Your task to perform on an android device: clear all cookies in the chrome app Image 0: 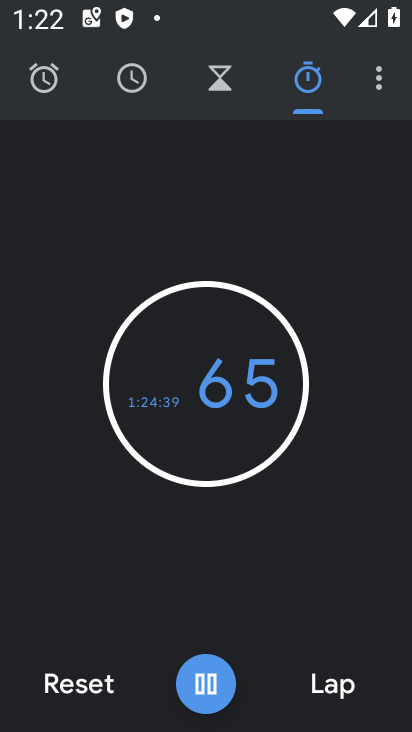
Step 0: press home button
Your task to perform on an android device: clear all cookies in the chrome app Image 1: 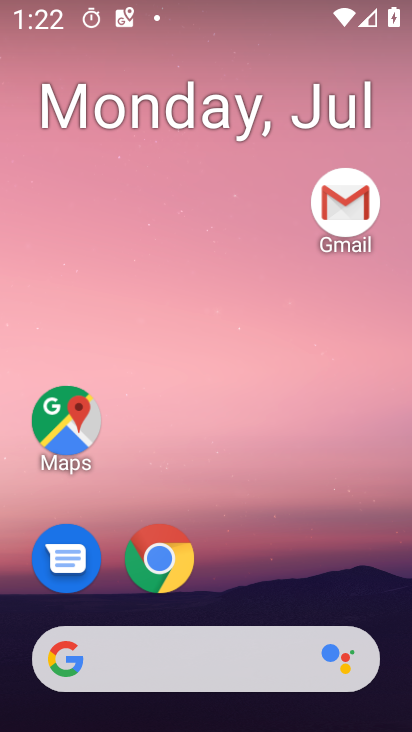
Step 1: drag from (339, 564) to (351, 64)
Your task to perform on an android device: clear all cookies in the chrome app Image 2: 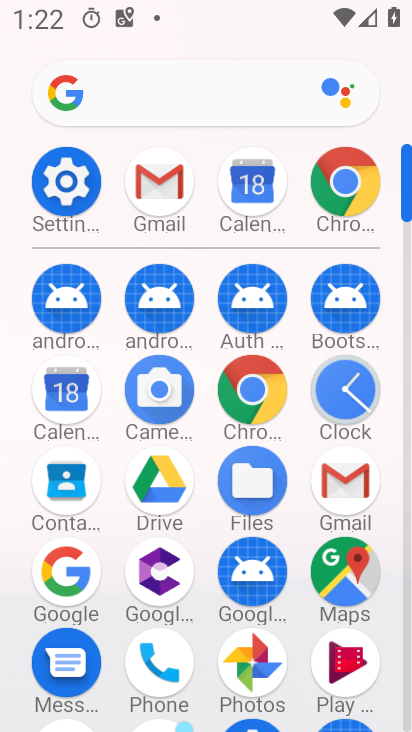
Step 2: click (272, 392)
Your task to perform on an android device: clear all cookies in the chrome app Image 3: 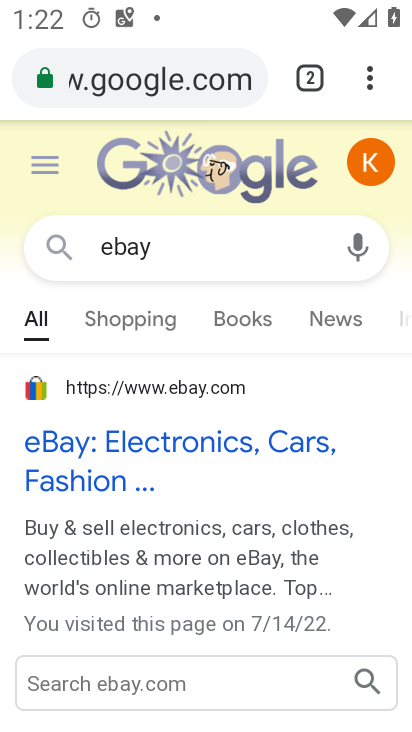
Step 3: click (370, 81)
Your task to perform on an android device: clear all cookies in the chrome app Image 4: 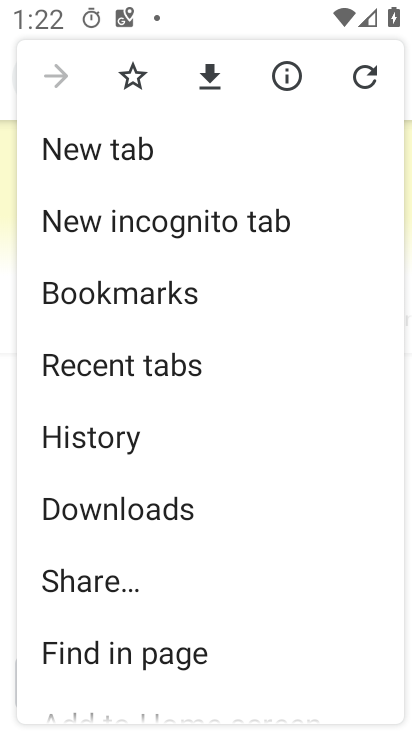
Step 4: drag from (318, 531) to (318, 435)
Your task to perform on an android device: clear all cookies in the chrome app Image 5: 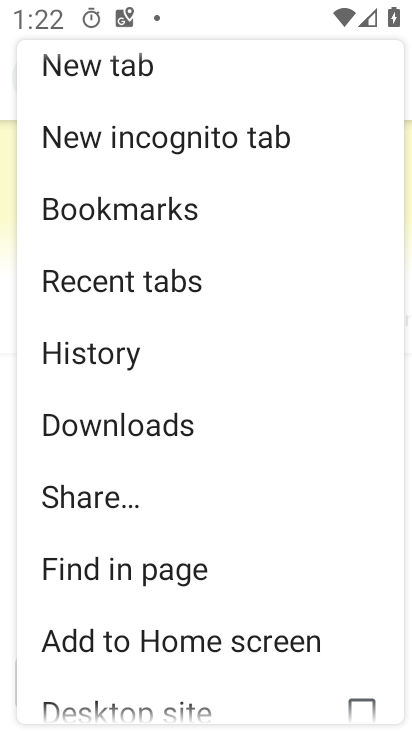
Step 5: drag from (306, 542) to (311, 451)
Your task to perform on an android device: clear all cookies in the chrome app Image 6: 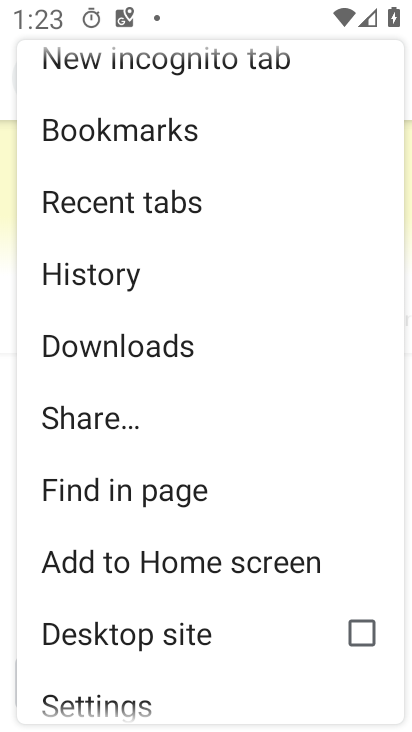
Step 6: drag from (290, 618) to (299, 472)
Your task to perform on an android device: clear all cookies in the chrome app Image 7: 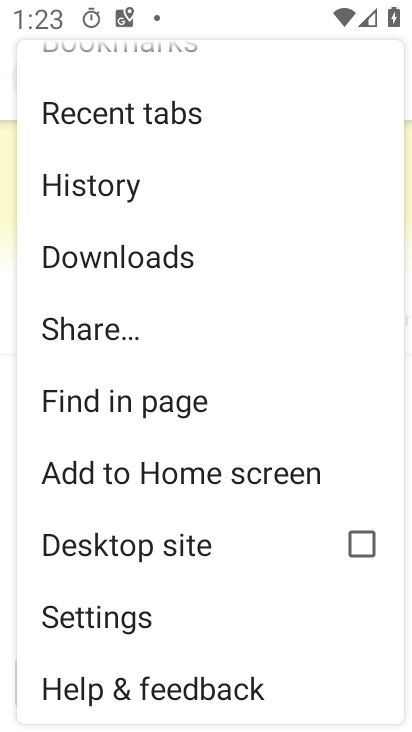
Step 7: click (209, 622)
Your task to perform on an android device: clear all cookies in the chrome app Image 8: 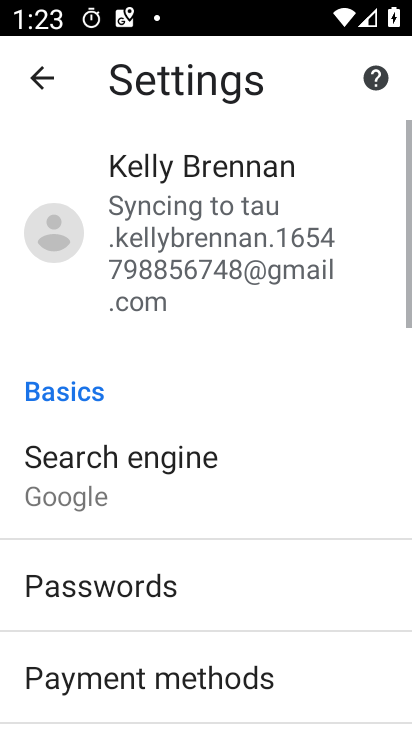
Step 8: drag from (289, 553) to (306, 471)
Your task to perform on an android device: clear all cookies in the chrome app Image 9: 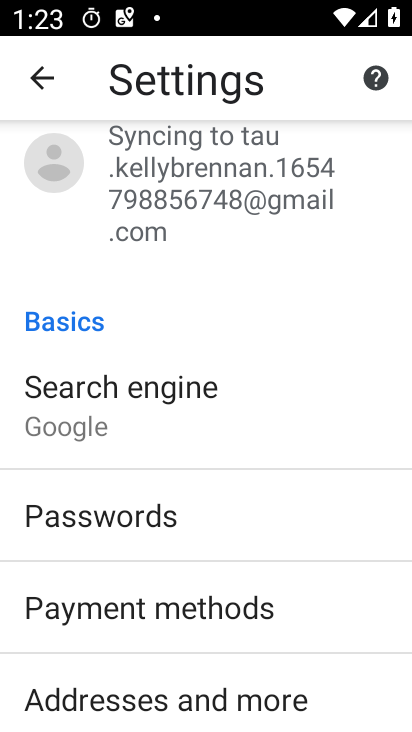
Step 9: drag from (316, 600) to (331, 500)
Your task to perform on an android device: clear all cookies in the chrome app Image 10: 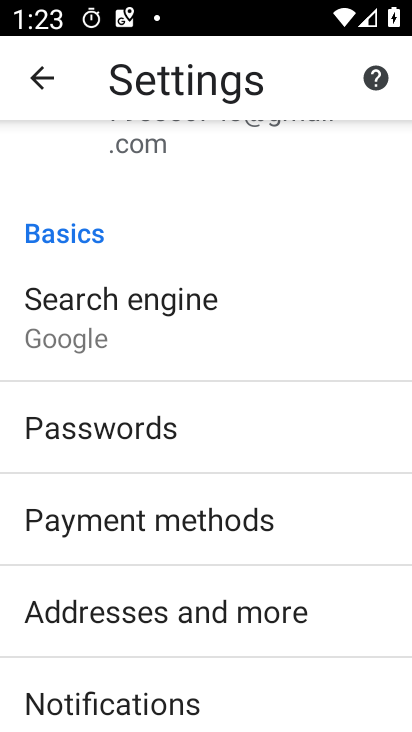
Step 10: drag from (331, 641) to (352, 423)
Your task to perform on an android device: clear all cookies in the chrome app Image 11: 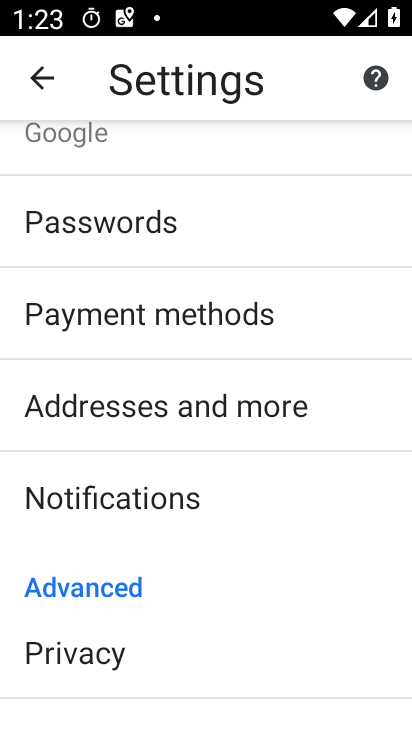
Step 11: drag from (318, 540) to (322, 471)
Your task to perform on an android device: clear all cookies in the chrome app Image 12: 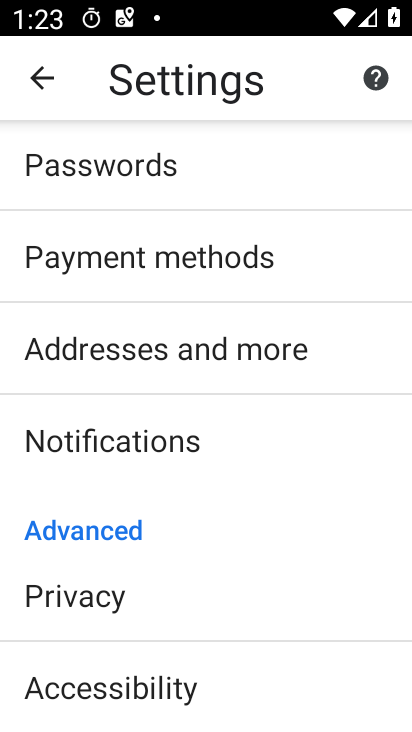
Step 12: drag from (319, 573) to (329, 483)
Your task to perform on an android device: clear all cookies in the chrome app Image 13: 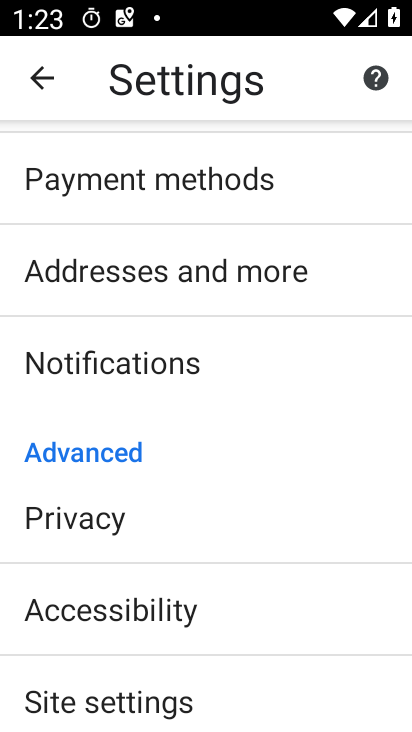
Step 13: drag from (324, 595) to (331, 508)
Your task to perform on an android device: clear all cookies in the chrome app Image 14: 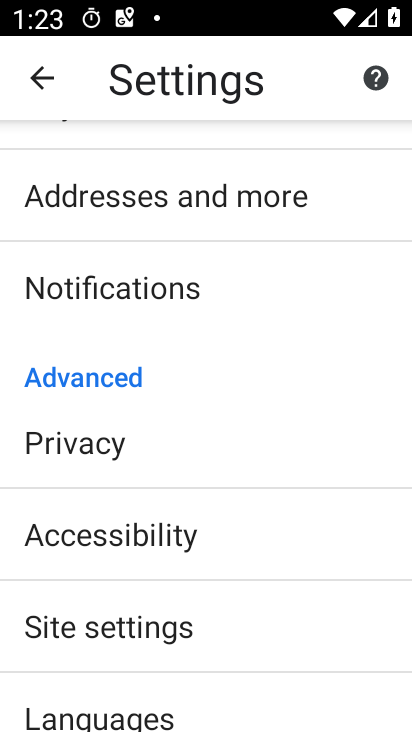
Step 14: click (262, 475)
Your task to perform on an android device: clear all cookies in the chrome app Image 15: 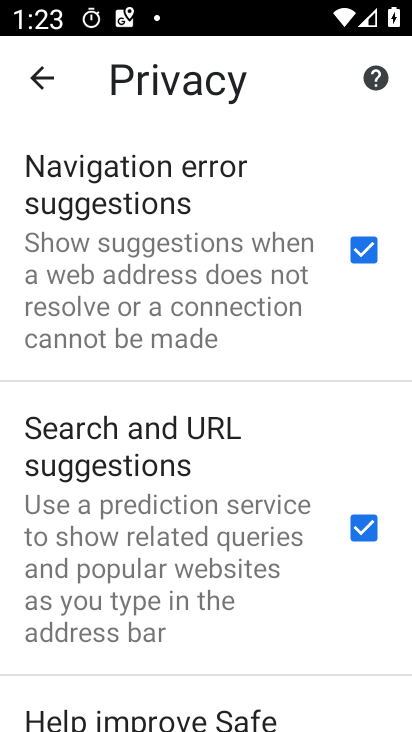
Step 15: drag from (279, 568) to (290, 504)
Your task to perform on an android device: clear all cookies in the chrome app Image 16: 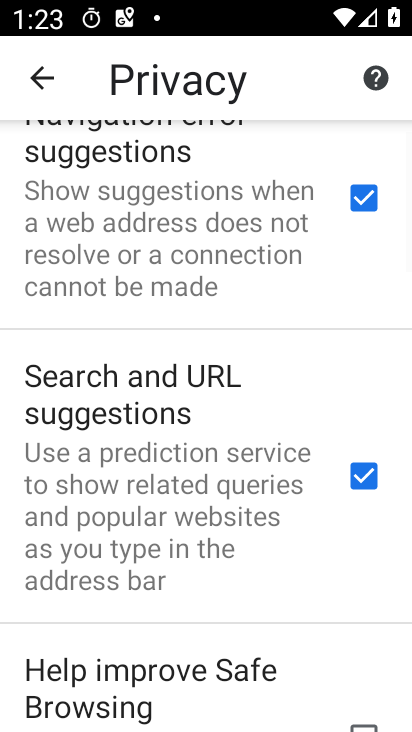
Step 16: drag from (282, 582) to (286, 489)
Your task to perform on an android device: clear all cookies in the chrome app Image 17: 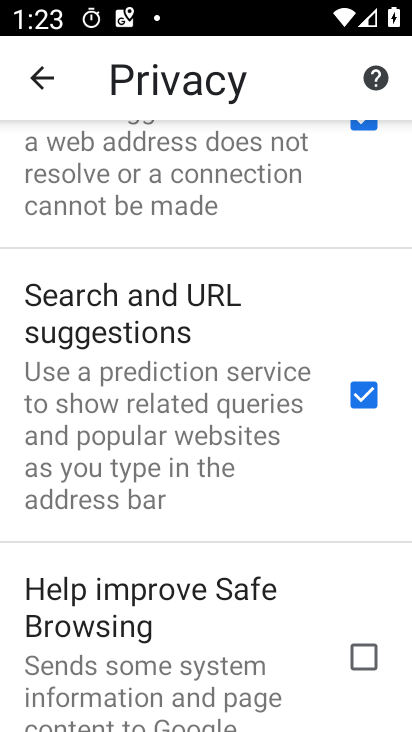
Step 17: drag from (286, 591) to (296, 506)
Your task to perform on an android device: clear all cookies in the chrome app Image 18: 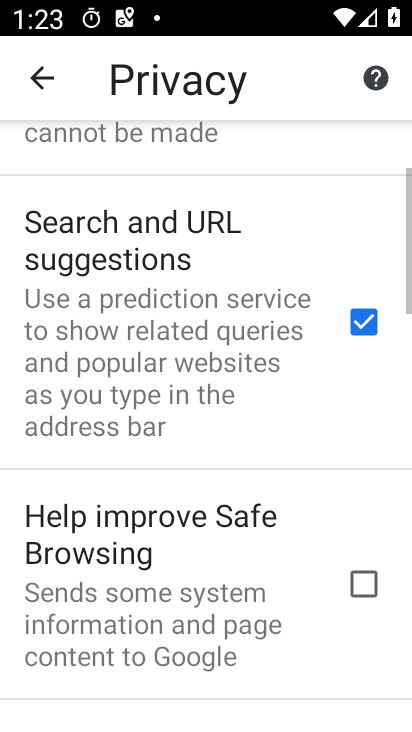
Step 18: drag from (287, 593) to (286, 495)
Your task to perform on an android device: clear all cookies in the chrome app Image 19: 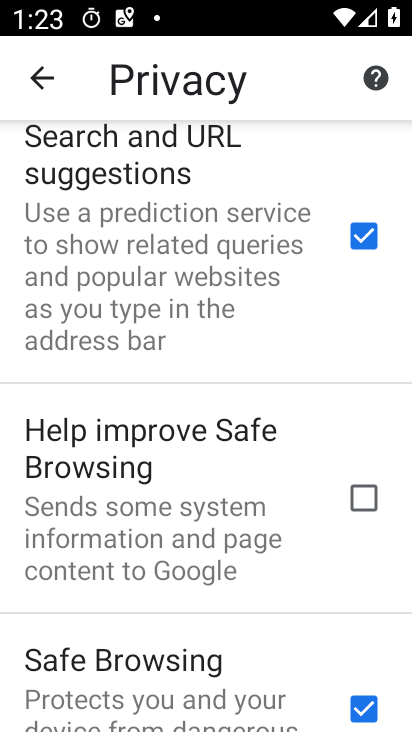
Step 19: drag from (284, 611) to (288, 512)
Your task to perform on an android device: clear all cookies in the chrome app Image 20: 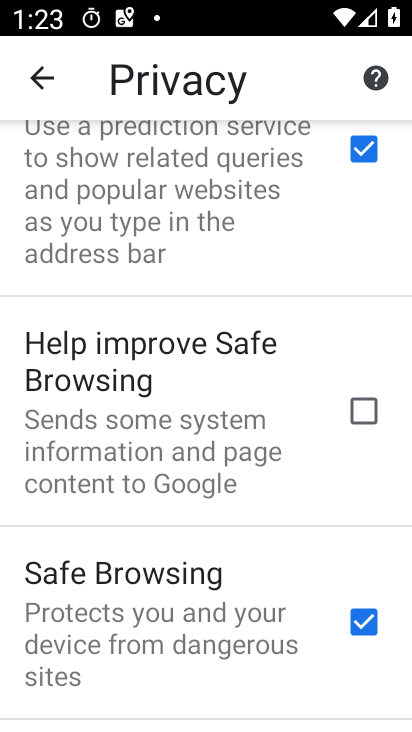
Step 20: drag from (286, 613) to (288, 528)
Your task to perform on an android device: clear all cookies in the chrome app Image 21: 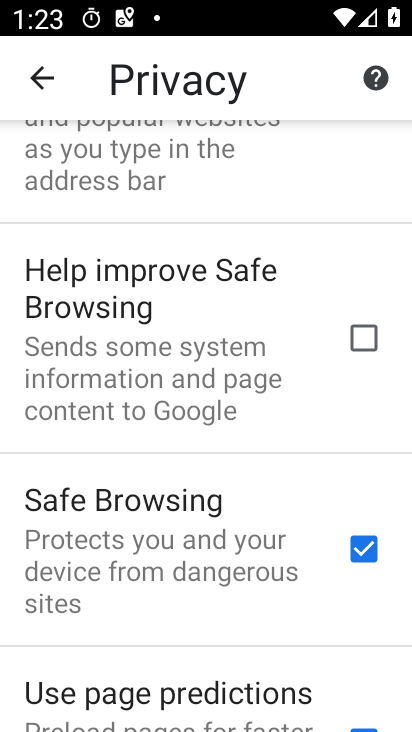
Step 21: drag from (288, 634) to (291, 544)
Your task to perform on an android device: clear all cookies in the chrome app Image 22: 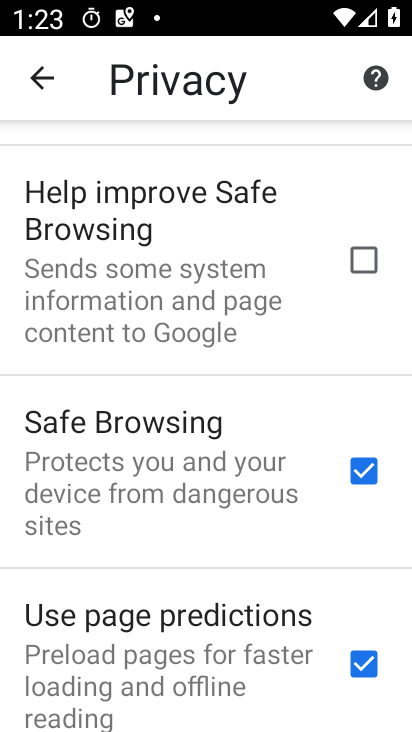
Step 22: drag from (280, 666) to (301, 554)
Your task to perform on an android device: clear all cookies in the chrome app Image 23: 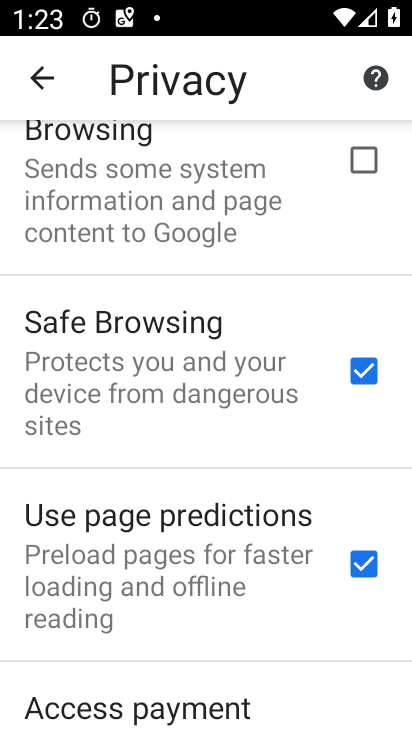
Step 23: drag from (274, 663) to (284, 550)
Your task to perform on an android device: clear all cookies in the chrome app Image 24: 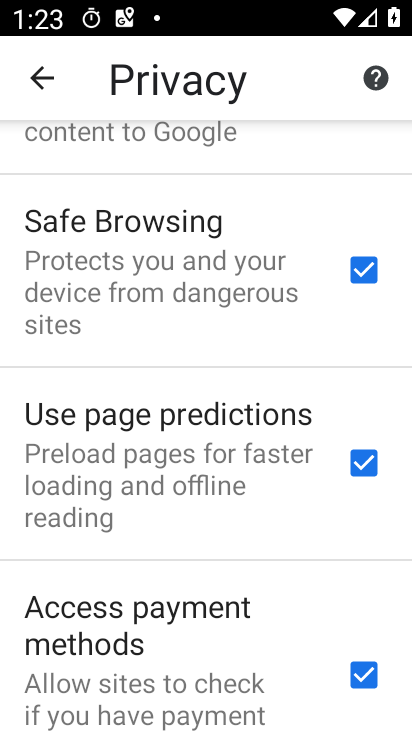
Step 24: drag from (279, 619) to (285, 525)
Your task to perform on an android device: clear all cookies in the chrome app Image 25: 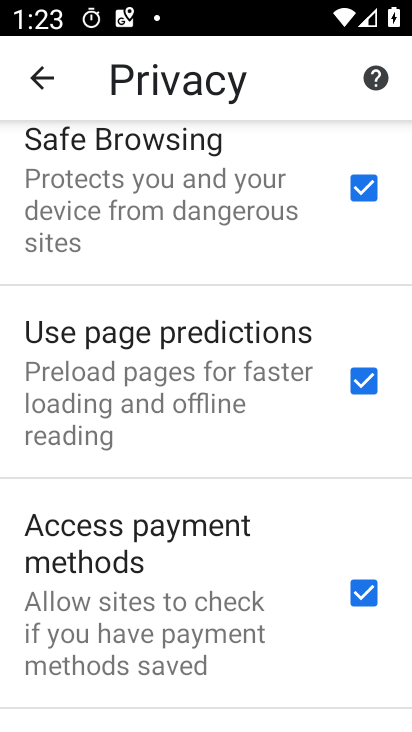
Step 25: drag from (275, 654) to (285, 522)
Your task to perform on an android device: clear all cookies in the chrome app Image 26: 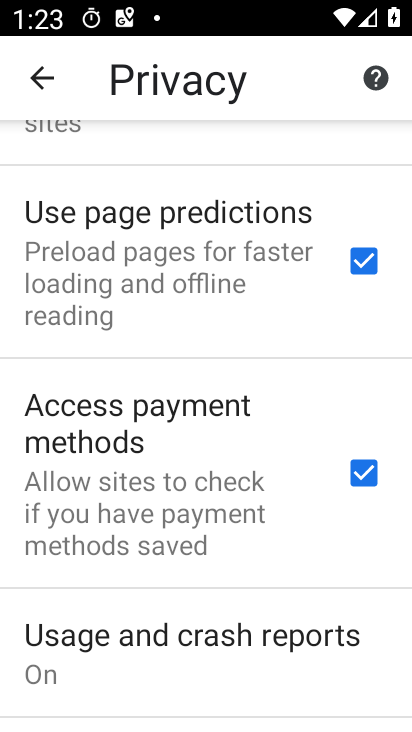
Step 26: drag from (263, 670) to (275, 552)
Your task to perform on an android device: clear all cookies in the chrome app Image 27: 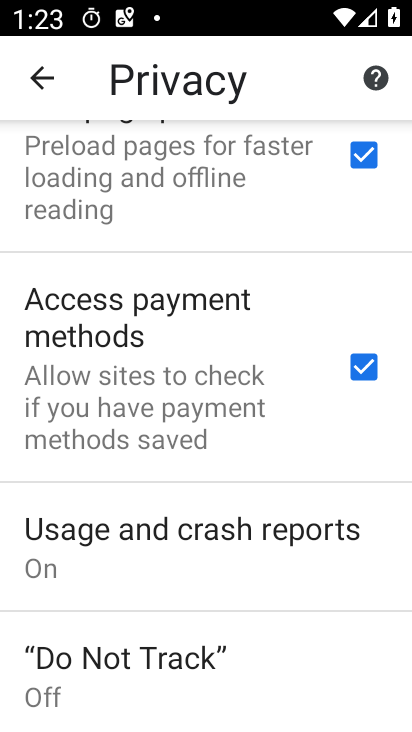
Step 27: drag from (273, 650) to (303, 493)
Your task to perform on an android device: clear all cookies in the chrome app Image 28: 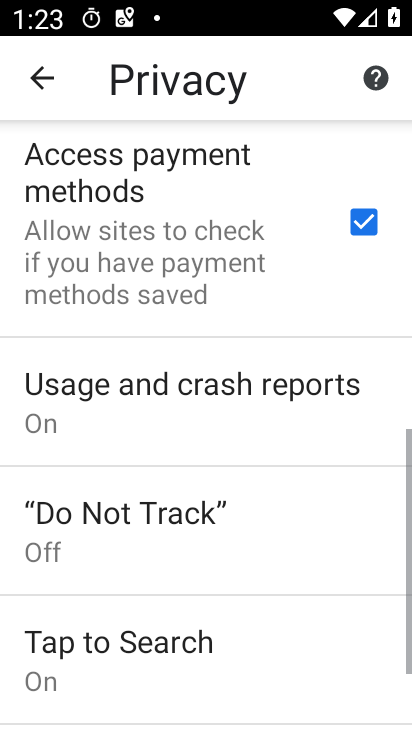
Step 28: drag from (286, 640) to (295, 465)
Your task to perform on an android device: clear all cookies in the chrome app Image 29: 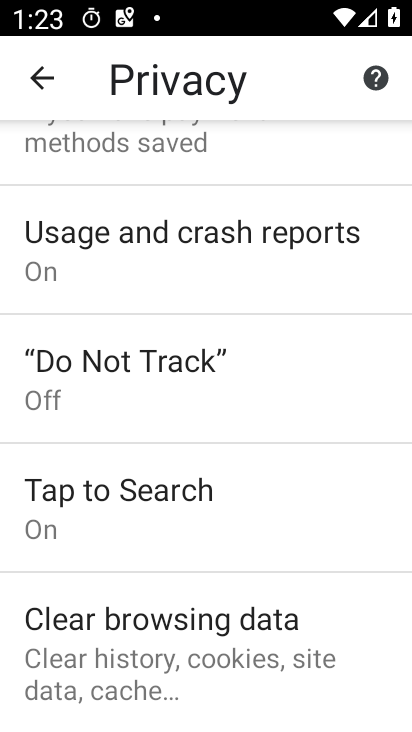
Step 29: click (268, 648)
Your task to perform on an android device: clear all cookies in the chrome app Image 30: 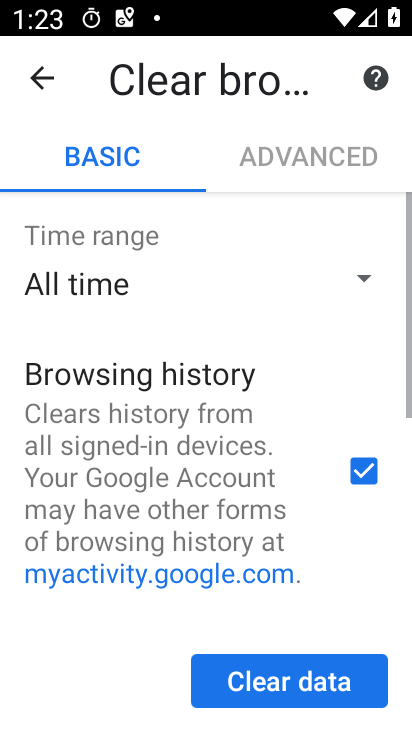
Step 30: click (282, 690)
Your task to perform on an android device: clear all cookies in the chrome app Image 31: 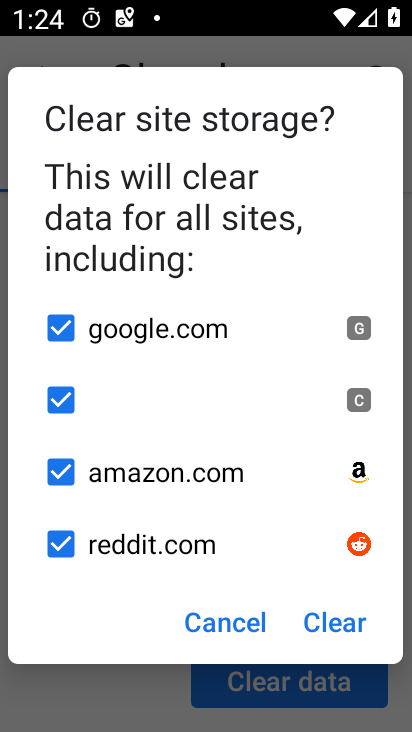
Step 31: click (327, 621)
Your task to perform on an android device: clear all cookies in the chrome app Image 32: 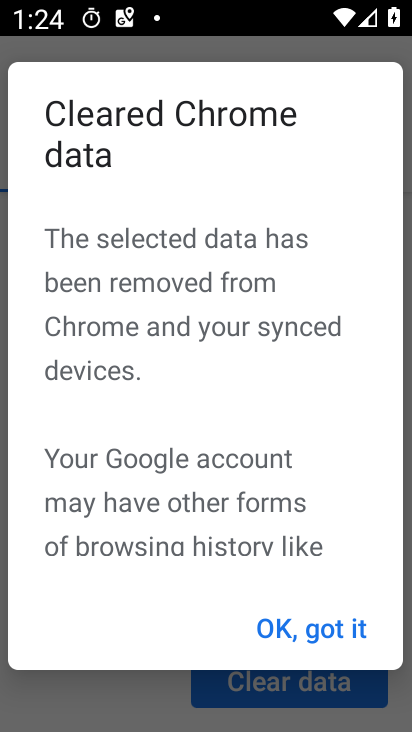
Step 32: click (284, 628)
Your task to perform on an android device: clear all cookies in the chrome app Image 33: 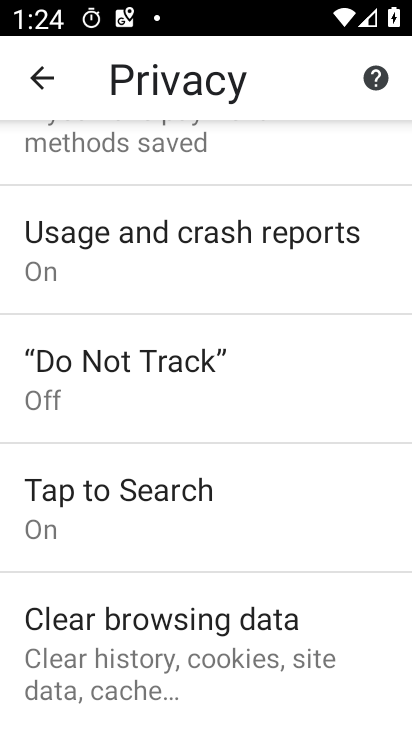
Step 33: task complete